Your task to perform on an android device: Set the phone to "Do not disturb". Image 0: 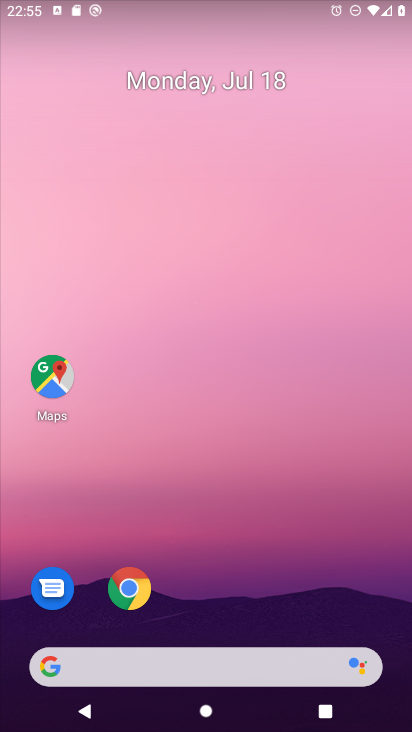
Step 0: drag from (374, 614) to (306, 0)
Your task to perform on an android device: Set the phone to "Do not disturb". Image 1: 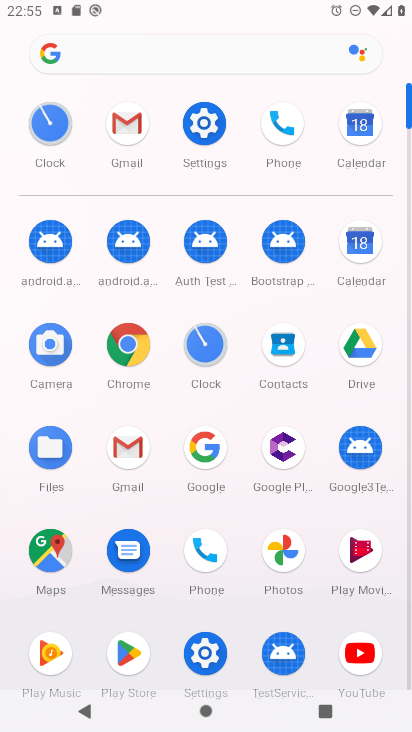
Step 1: click (205, 656)
Your task to perform on an android device: Set the phone to "Do not disturb". Image 2: 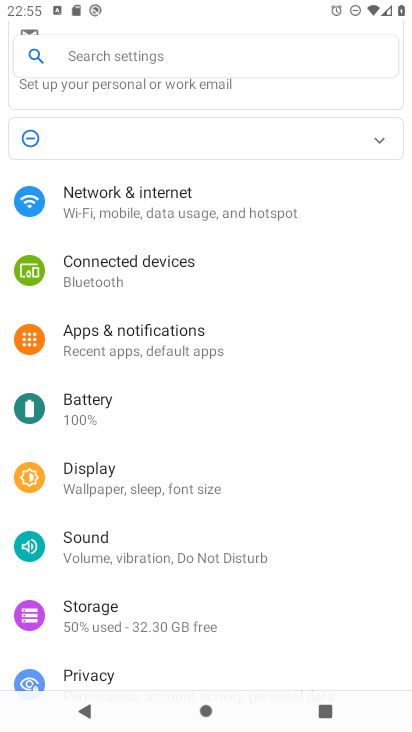
Step 2: click (98, 549)
Your task to perform on an android device: Set the phone to "Do not disturb". Image 3: 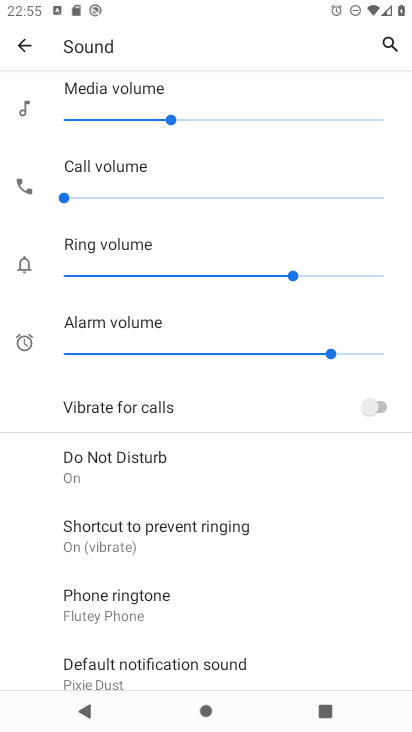
Step 3: click (87, 450)
Your task to perform on an android device: Set the phone to "Do not disturb". Image 4: 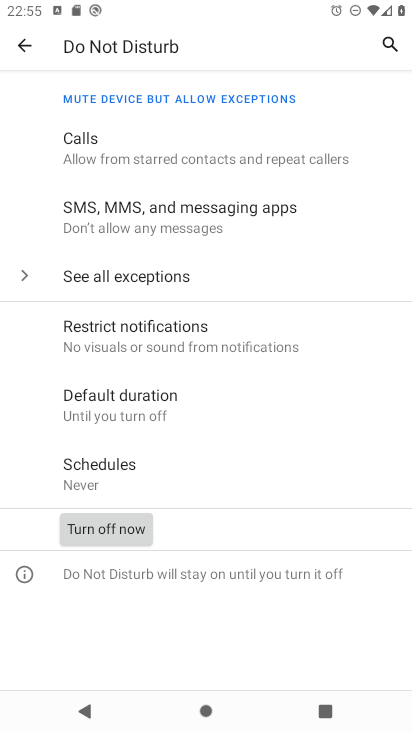
Step 4: task complete